Your task to perform on an android device: Go to location settings Image 0: 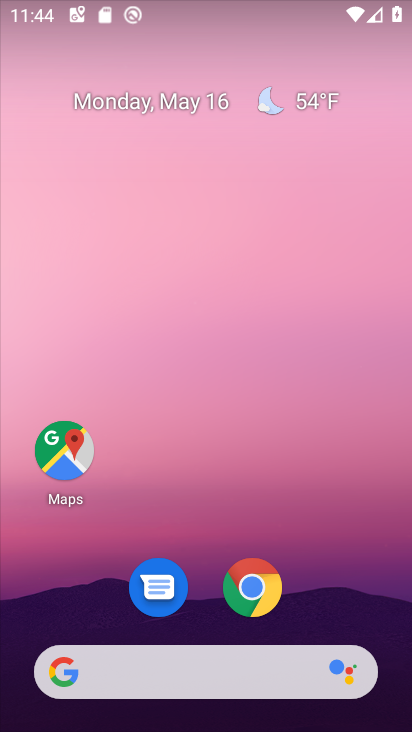
Step 0: drag from (204, 623) to (310, 68)
Your task to perform on an android device: Go to location settings Image 1: 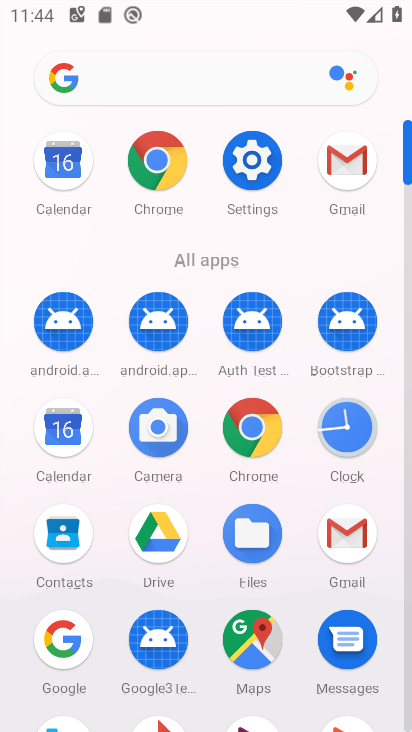
Step 1: click (244, 174)
Your task to perform on an android device: Go to location settings Image 2: 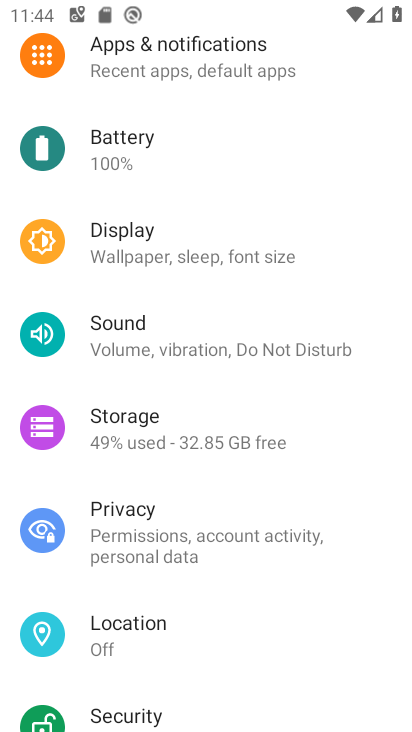
Step 2: click (133, 634)
Your task to perform on an android device: Go to location settings Image 3: 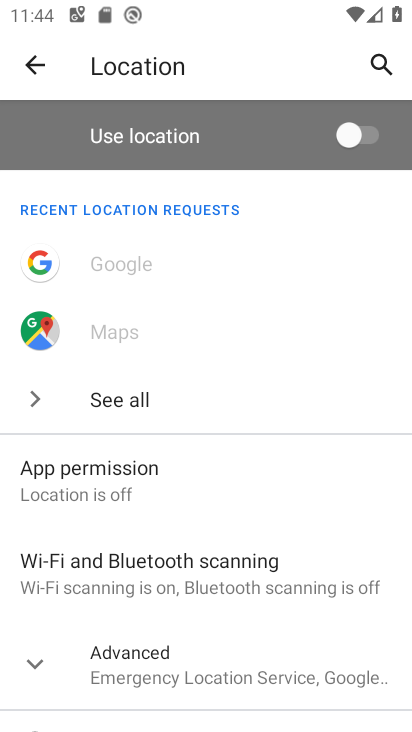
Step 3: task complete